Your task to perform on an android device: Do I have any events today? Image 0: 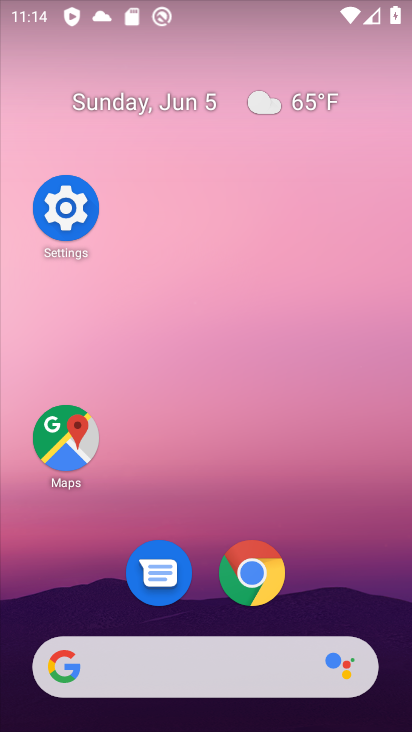
Step 0: drag from (313, 587) to (316, 189)
Your task to perform on an android device: Do I have any events today? Image 1: 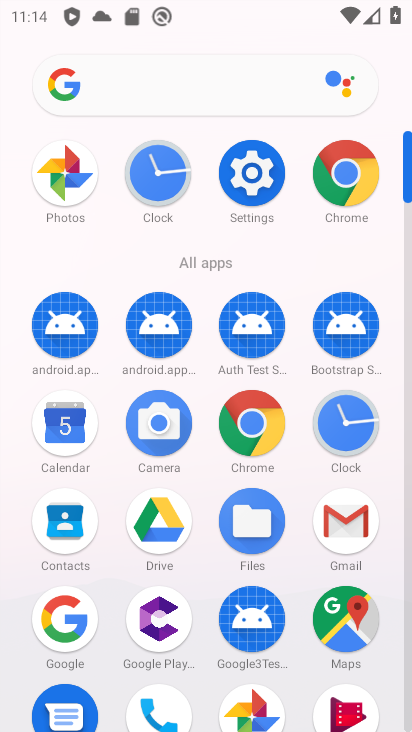
Step 1: click (81, 426)
Your task to perform on an android device: Do I have any events today? Image 2: 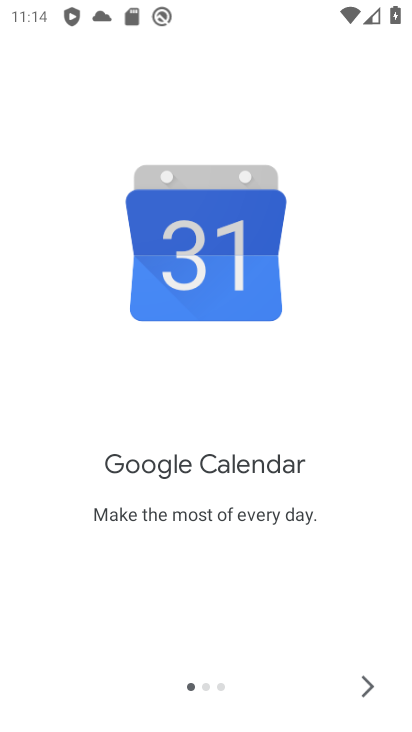
Step 2: click (366, 680)
Your task to perform on an android device: Do I have any events today? Image 3: 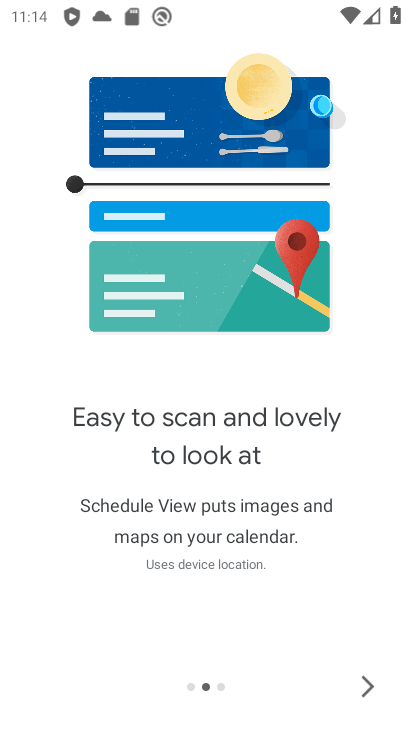
Step 3: click (366, 680)
Your task to perform on an android device: Do I have any events today? Image 4: 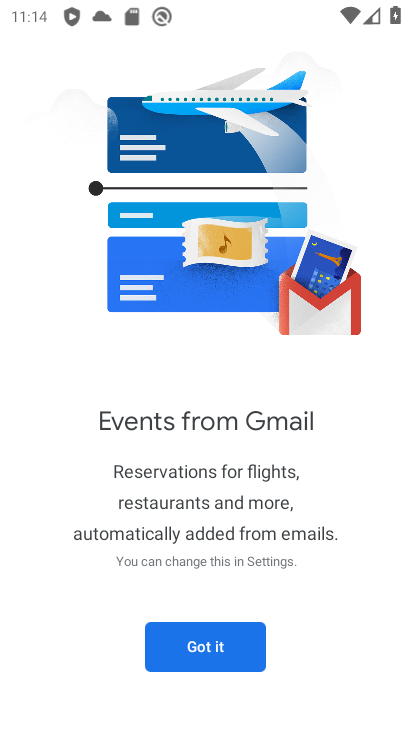
Step 4: click (279, 666)
Your task to perform on an android device: Do I have any events today? Image 5: 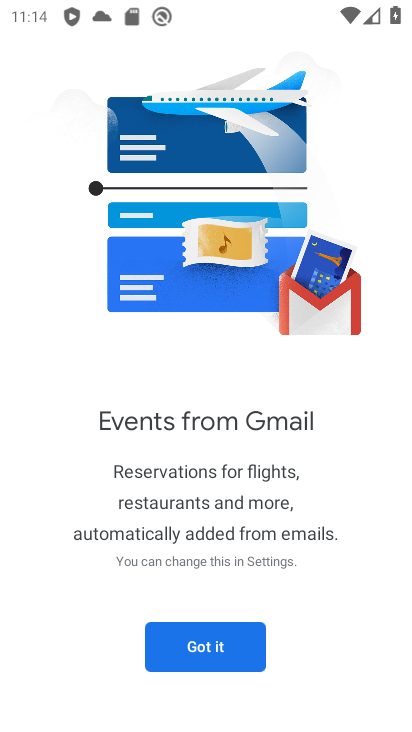
Step 5: click (260, 653)
Your task to perform on an android device: Do I have any events today? Image 6: 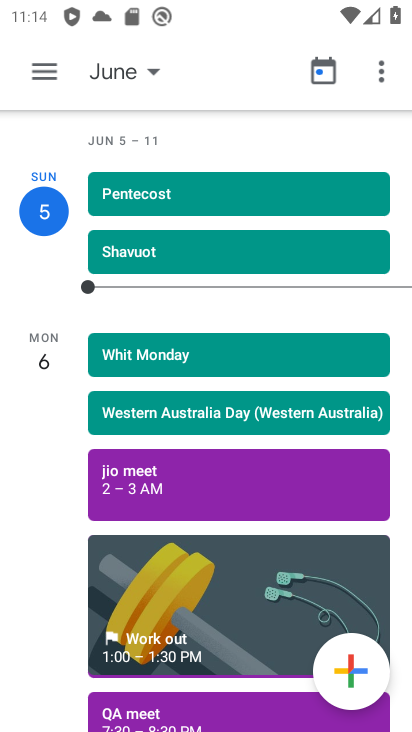
Step 6: click (46, 198)
Your task to perform on an android device: Do I have any events today? Image 7: 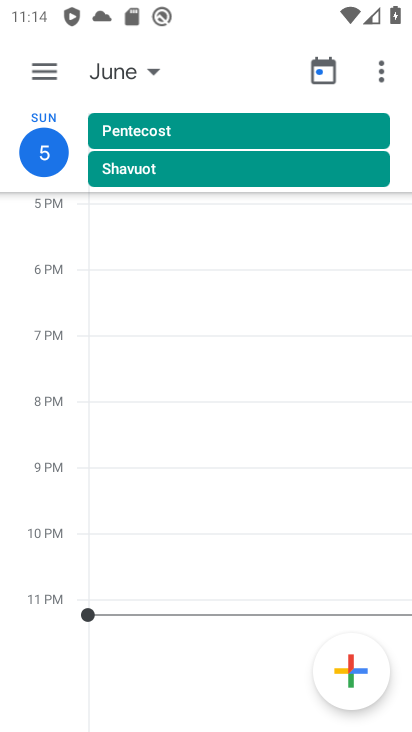
Step 7: task complete